Your task to perform on an android device: Go to eBay Image 0: 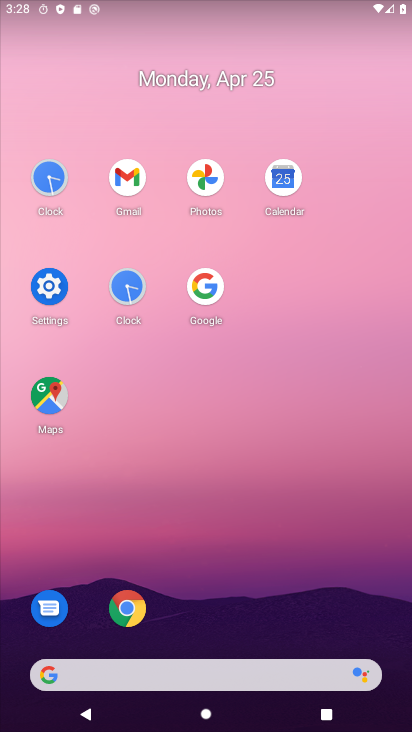
Step 0: click (128, 602)
Your task to perform on an android device: Go to eBay Image 1: 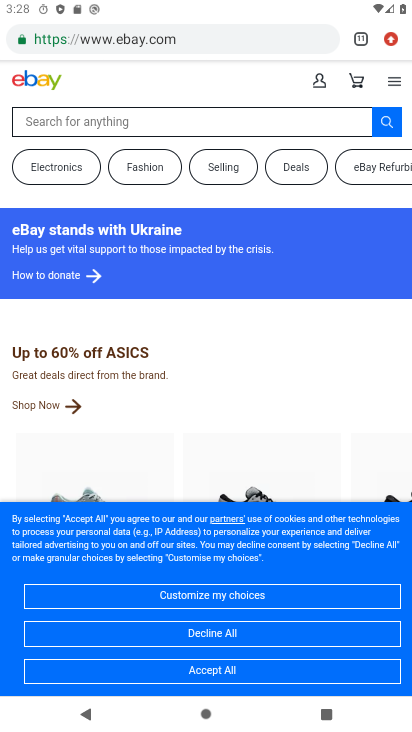
Step 1: task complete